Your task to perform on an android device: Open Chrome and go to settings Image 0: 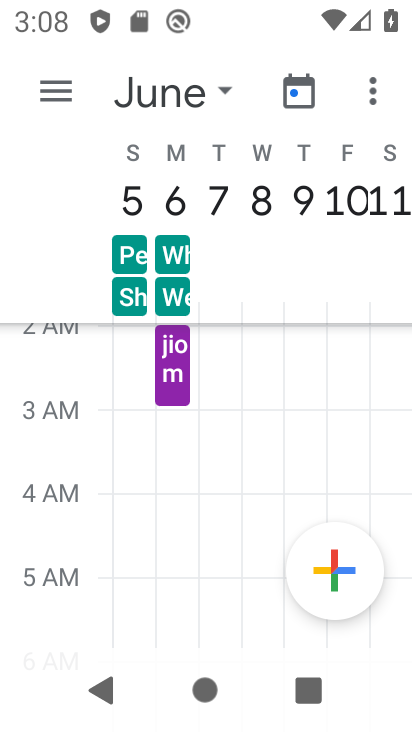
Step 0: press home button
Your task to perform on an android device: Open Chrome and go to settings Image 1: 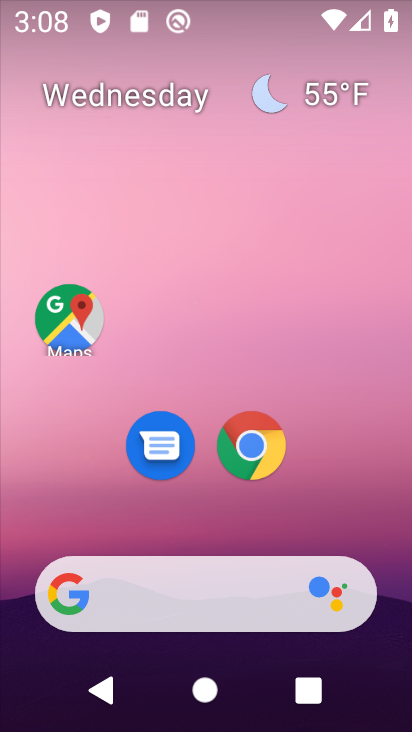
Step 1: click (256, 431)
Your task to perform on an android device: Open Chrome and go to settings Image 2: 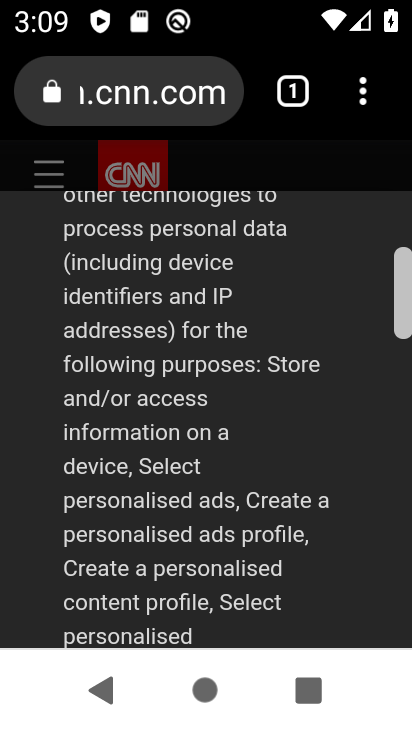
Step 2: click (355, 93)
Your task to perform on an android device: Open Chrome and go to settings Image 3: 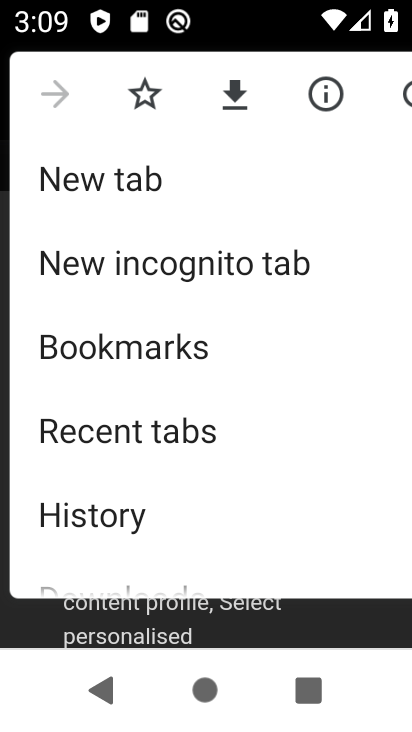
Step 3: drag from (279, 451) to (283, 200)
Your task to perform on an android device: Open Chrome and go to settings Image 4: 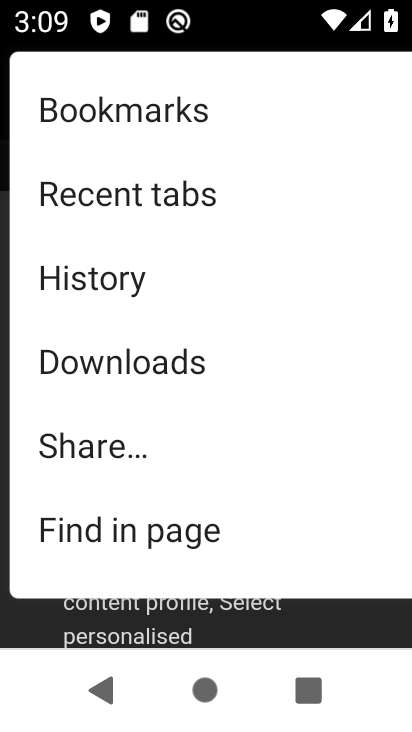
Step 4: click (283, 200)
Your task to perform on an android device: Open Chrome and go to settings Image 5: 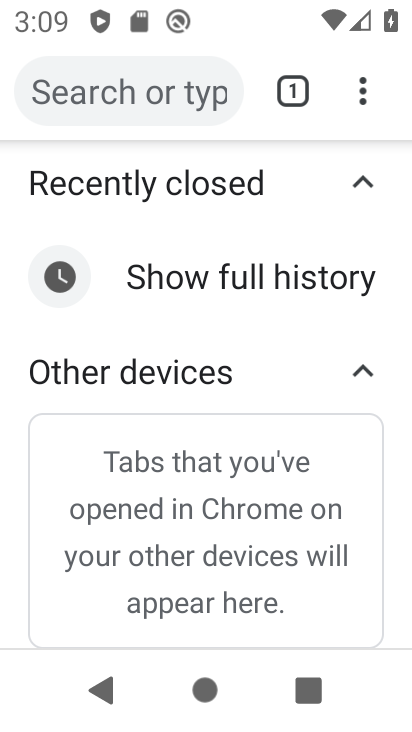
Step 5: click (347, 107)
Your task to perform on an android device: Open Chrome and go to settings Image 6: 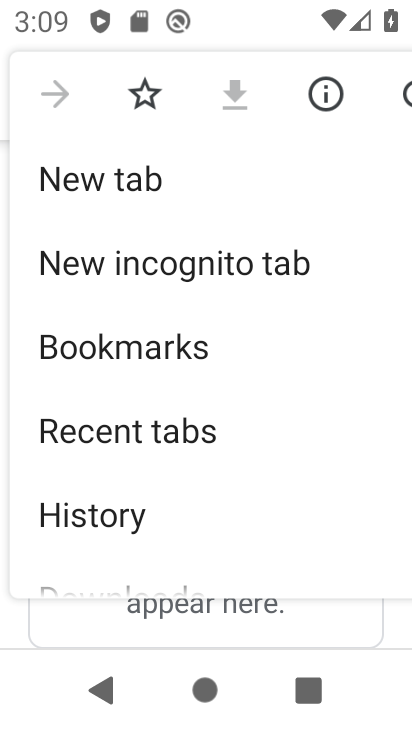
Step 6: drag from (268, 442) to (265, 140)
Your task to perform on an android device: Open Chrome and go to settings Image 7: 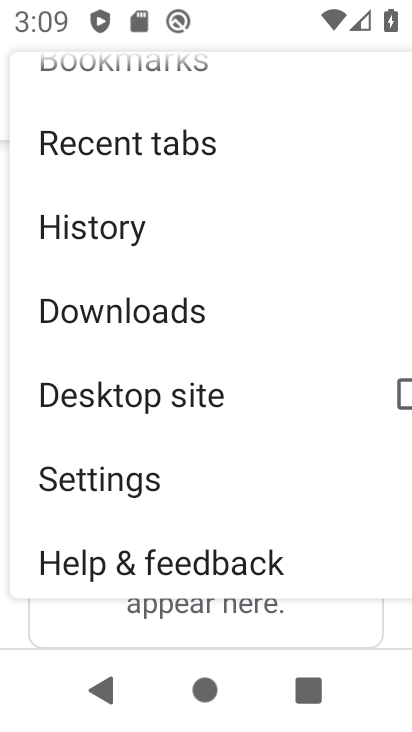
Step 7: click (88, 470)
Your task to perform on an android device: Open Chrome and go to settings Image 8: 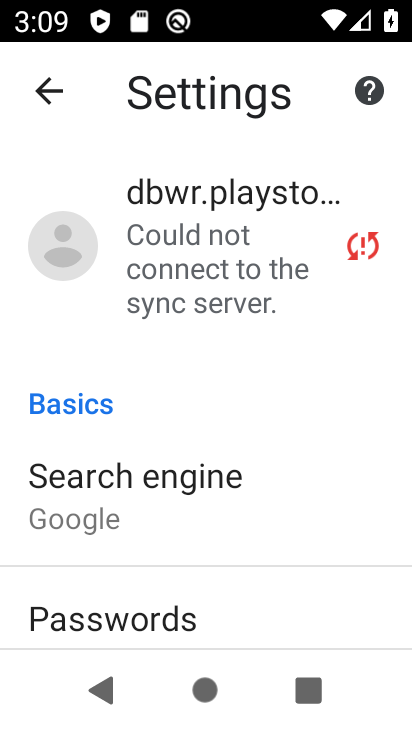
Step 8: task complete